Your task to perform on an android device: check out phone information Image 0: 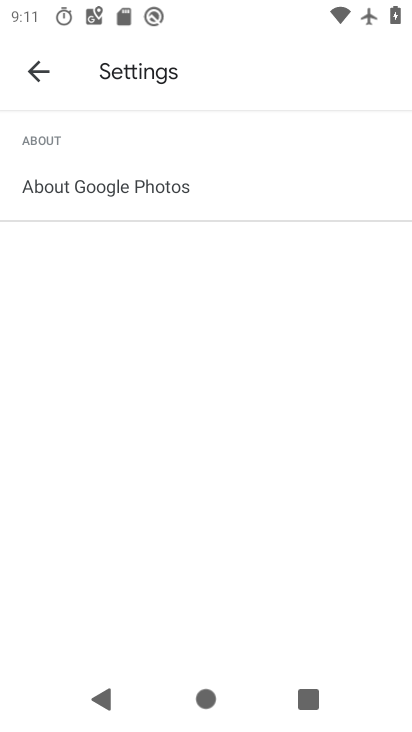
Step 0: press home button
Your task to perform on an android device: check out phone information Image 1: 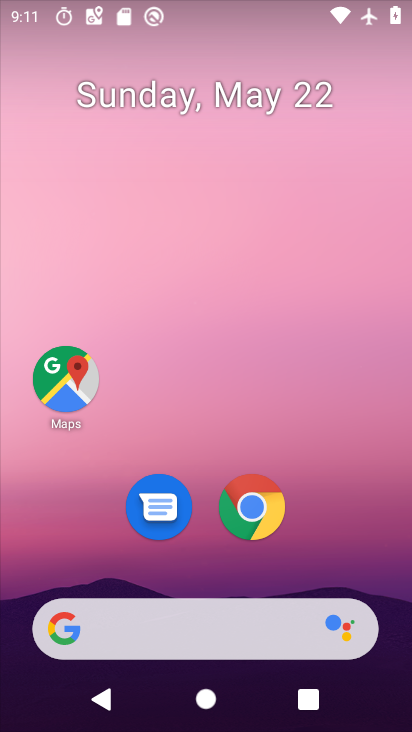
Step 1: drag from (202, 564) to (265, 43)
Your task to perform on an android device: check out phone information Image 2: 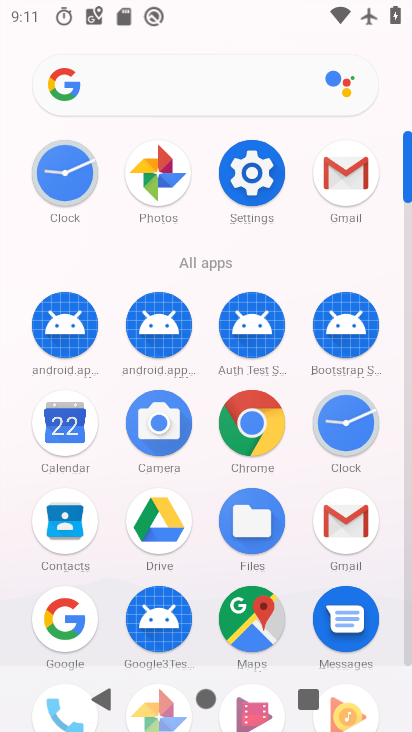
Step 2: click (233, 183)
Your task to perform on an android device: check out phone information Image 3: 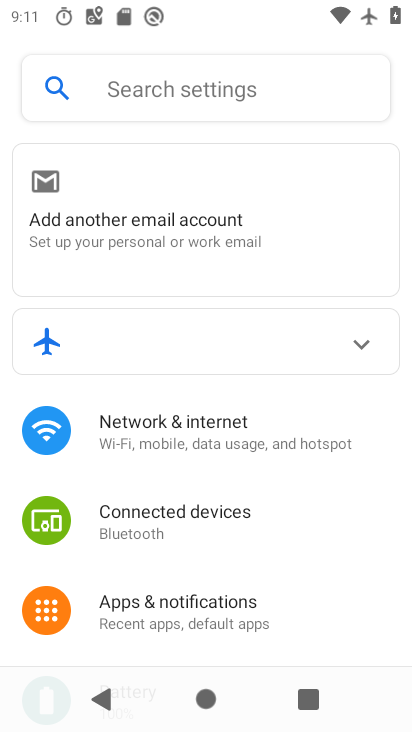
Step 3: drag from (110, 633) to (402, 4)
Your task to perform on an android device: check out phone information Image 4: 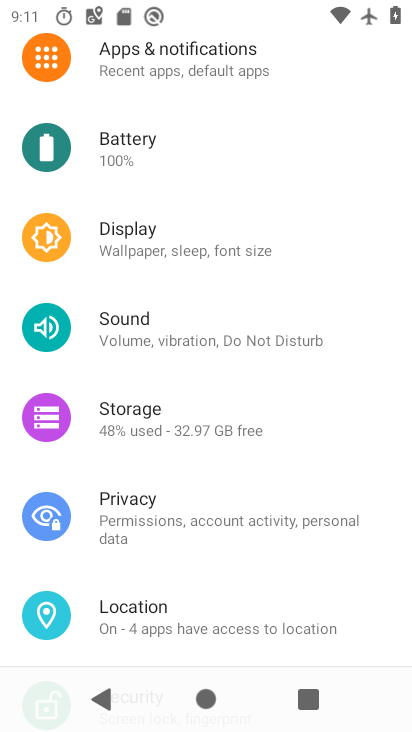
Step 4: drag from (178, 611) to (272, 53)
Your task to perform on an android device: check out phone information Image 5: 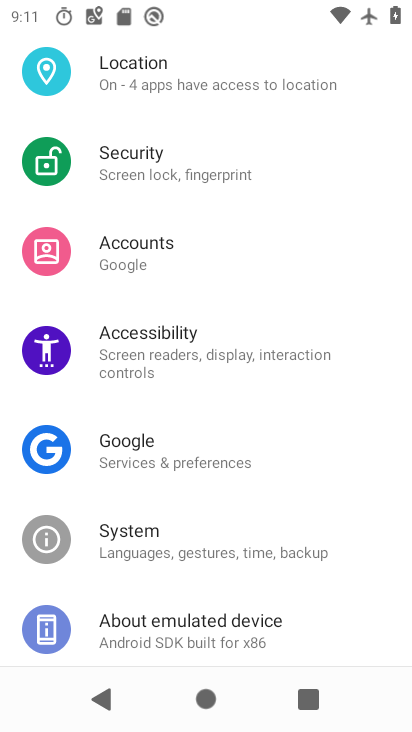
Step 5: drag from (118, 620) to (297, 0)
Your task to perform on an android device: check out phone information Image 6: 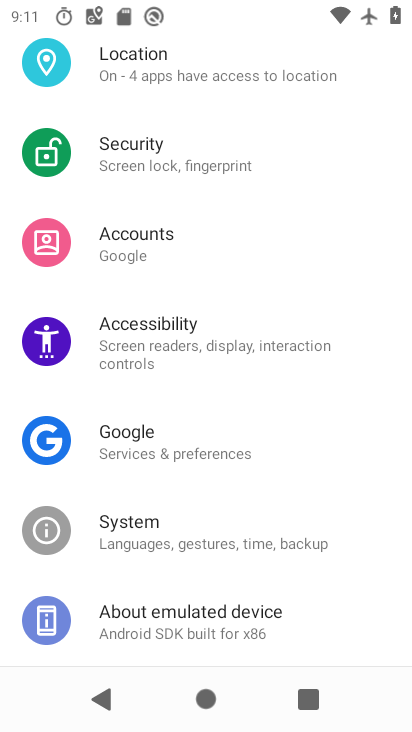
Step 6: click (123, 615)
Your task to perform on an android device: check out phone information Image 7: 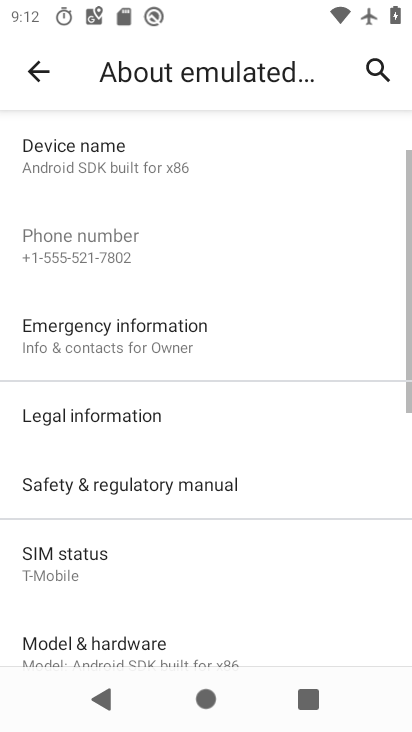
Step 7: task complete